Your task to perform on an android device: see tabs open on other devices in the chrome app Image 0: 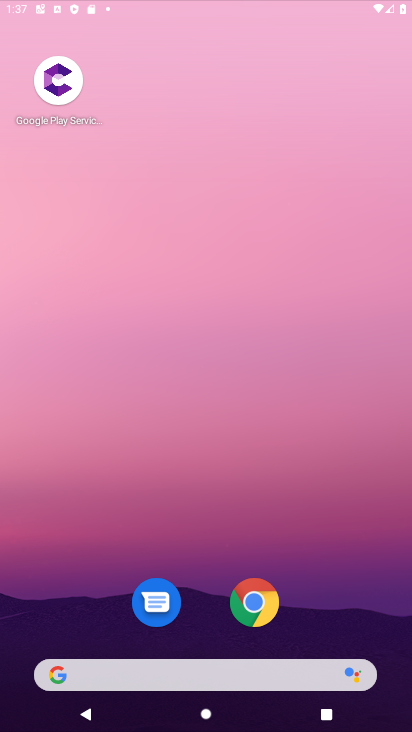
Step 0: drag from (264, 289) to (187, 11)
Your task to perform on an android device: see tabs open on other devices in the chrome app Image 1: 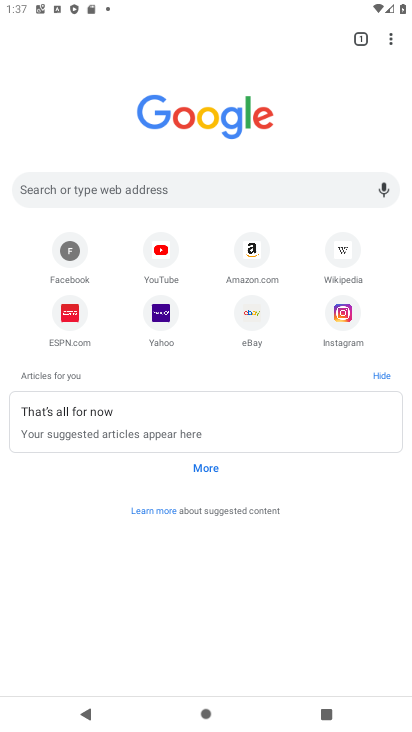
Step 1: press home button
Your task to perform on an android device: see tabs open on other devices in the chrome app Image 2: 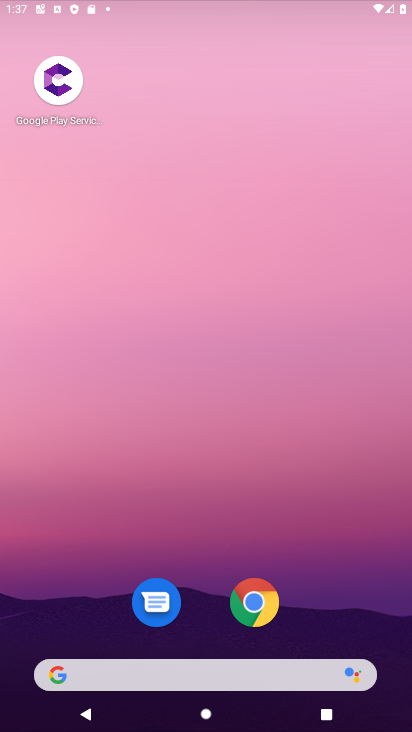
Step 2: drag from (335, 573) to (2, 143)
Your task to perform on an android device: see tabs open on other devices in the chrome app Image 3: 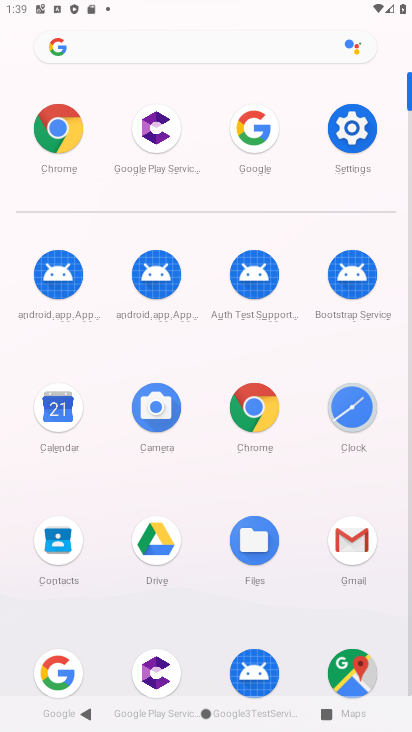
Step 3: click (59, 140)
Your task to perform on an android device: see tabs open on other devices in the chrome app Image 4: 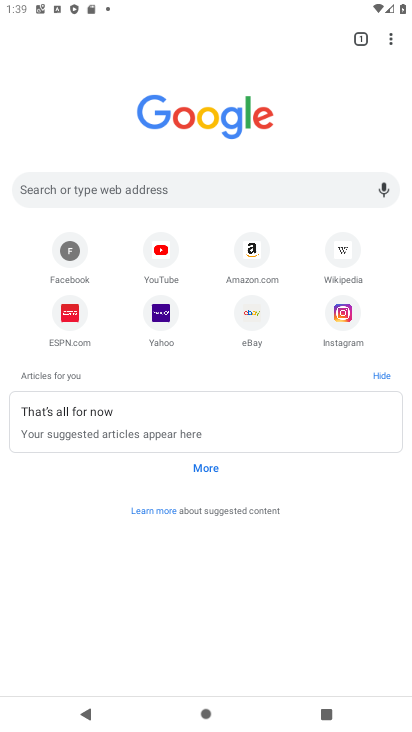
Step 4: task complete